Your task to perform on an android device: open sync settings in chrome Image 0: 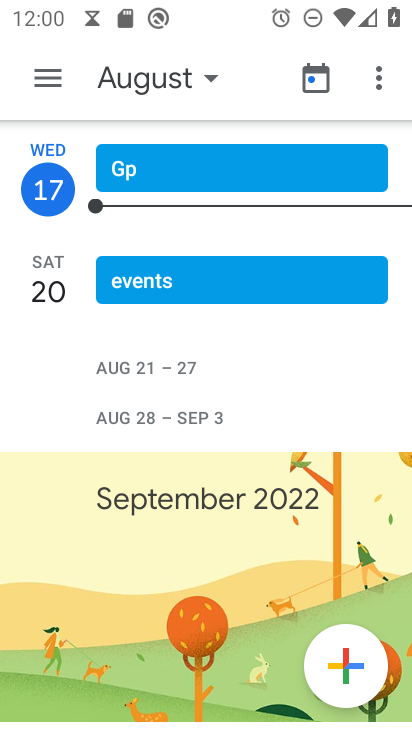
Step 0: press home button
Your task to perform on an android device: open sync settings in chrome Image 1: 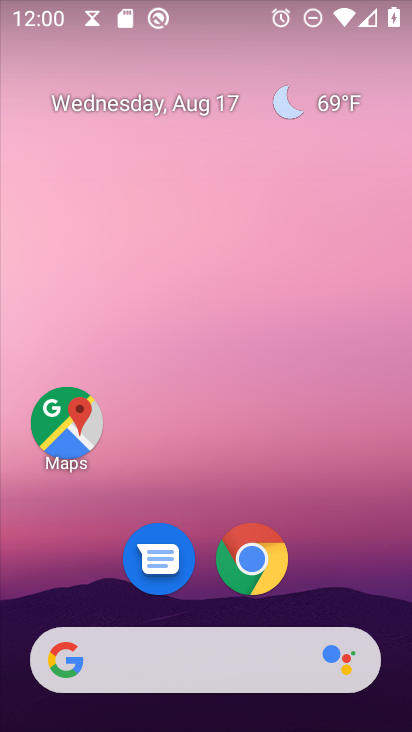
Step 1: click (254, 558)
Your task to perform on an android device: open sync settings in chrome Image 2: 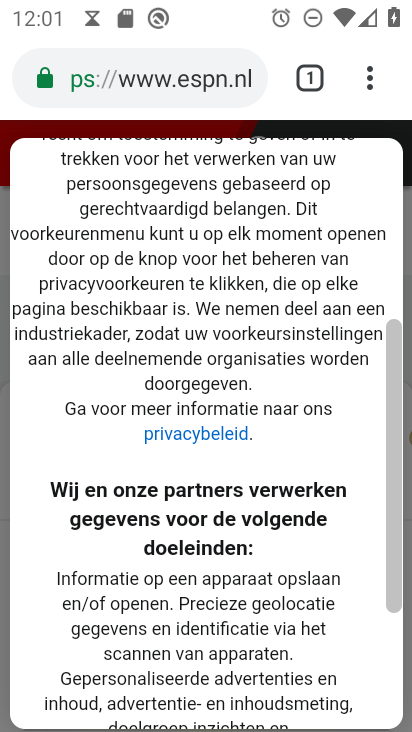
Step 2: click (387, 79)
Your task to perform on an android device: open sync settings in chrome Image 3: 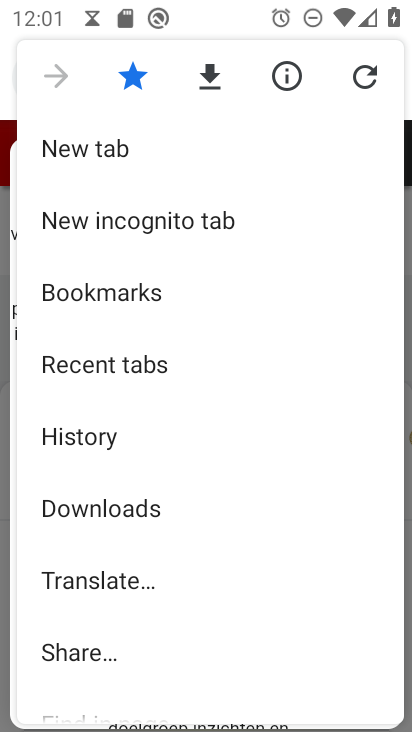
Step 3: drag from (148, 478) to (188, 395)
Your task to perform on an android device: open sync settings in chrome Image 4: 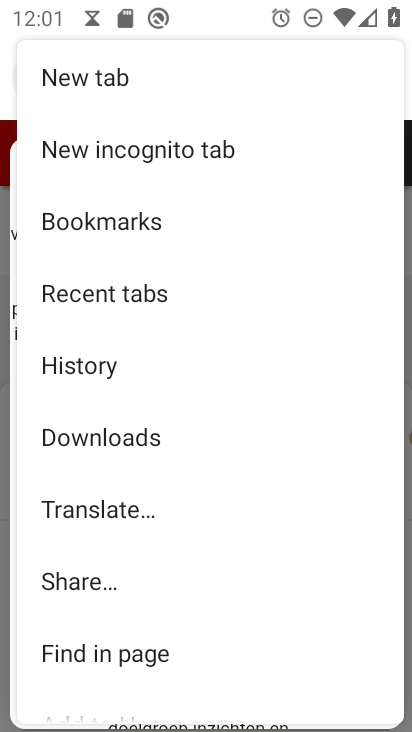
Step 4: drag from (129, 535) to (178, 447)
Your task to perform on an android device: open sync settings in chrome Image 5: 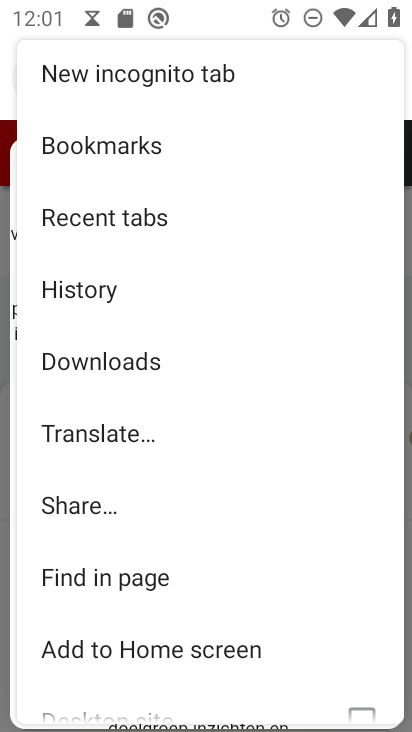
Step 5: drag from (94, 540) to (141, 453)
Your task to perform on an android device: open sync settings in chrome Image 6: 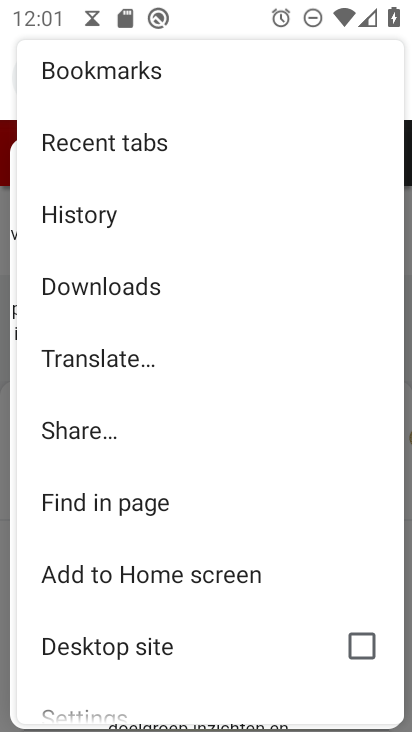
Step 6: drag from (96, 541) to (165, 430)
Your task to perform on an android device: open sync settings in chrome Image 7: 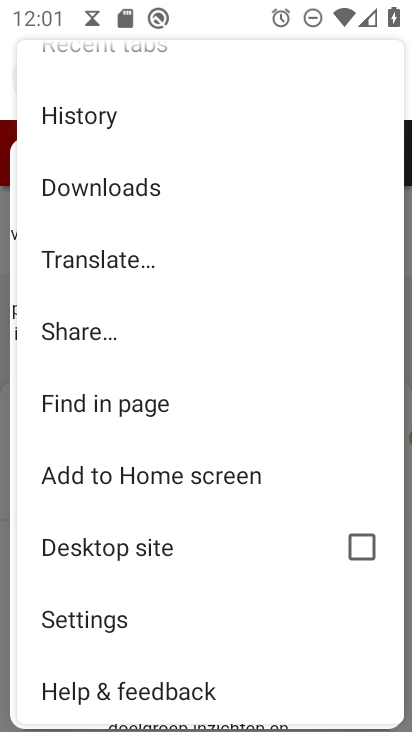
Step 7: click (83, 618)
Your task to perform on an android device: open sync settings in chrome Image 8: 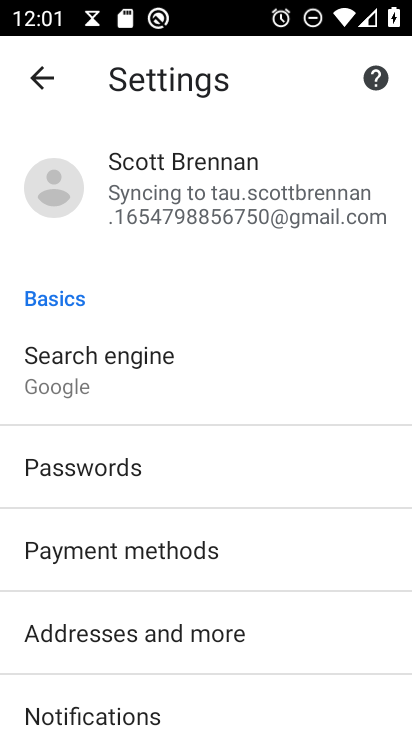
Step 8: drag from (137, 583) to (223, 472)
Your task to perform on an android device: open sync settings in chrome Image 9: 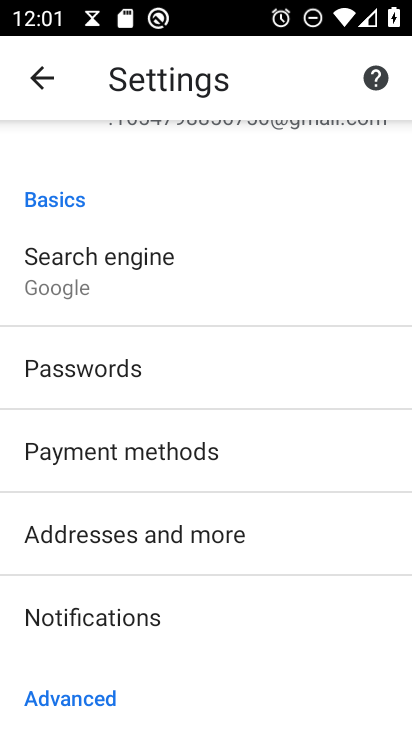
Step 9: drag from (214, 604) to (297, 499)
Your task to perform on an android device: open sync settings in chrome Image 10: 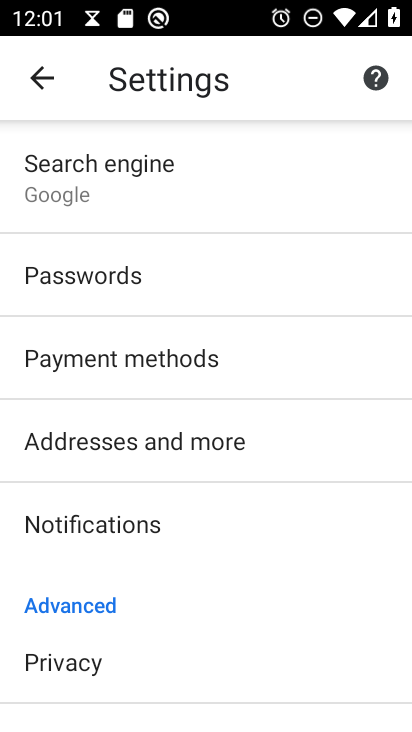
Step 10: drag from (223, 636) to (289, 533)
Your task to perform on an android device: open sync settings in chrome Image 11: 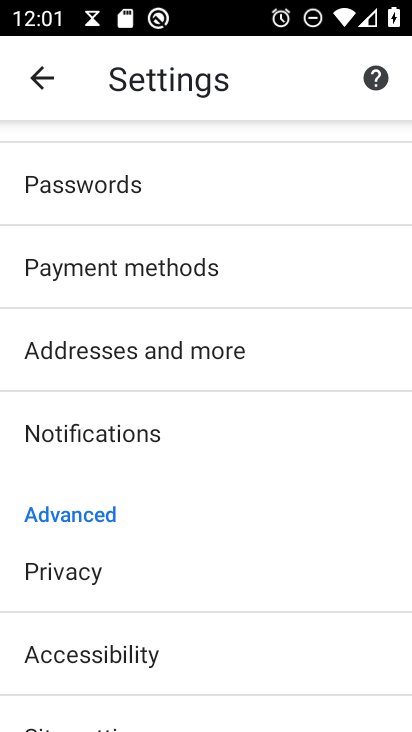
Step 11: drag from (204, 680) to (291, 571)
Your task to perform on an android device: open sync settings in chrome Image 12: 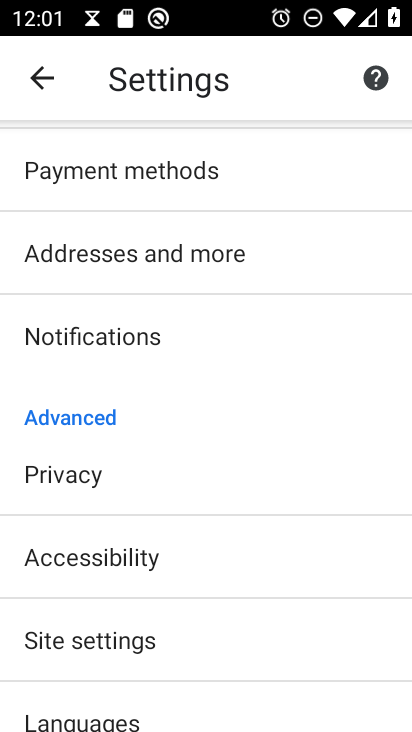
Step 12: drag from (224, 665) to (294, 575)
Your task to perform on an android device: open sync settings in chrome Image 13: 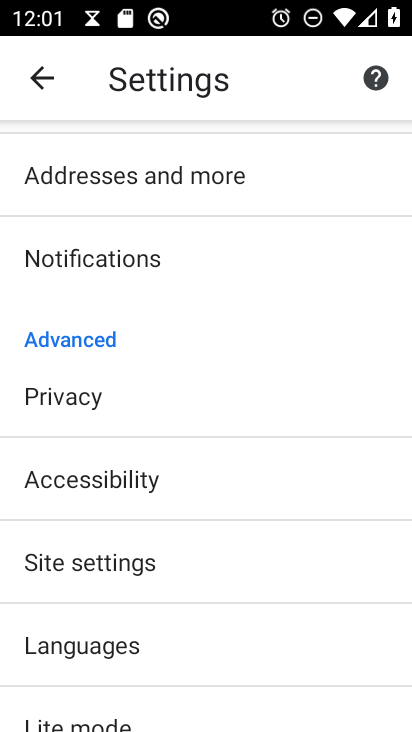
Step 13: drag from (196, 668) to (286, 557)
Your task to perform on an android device: open sync settings in chrome Image 14: 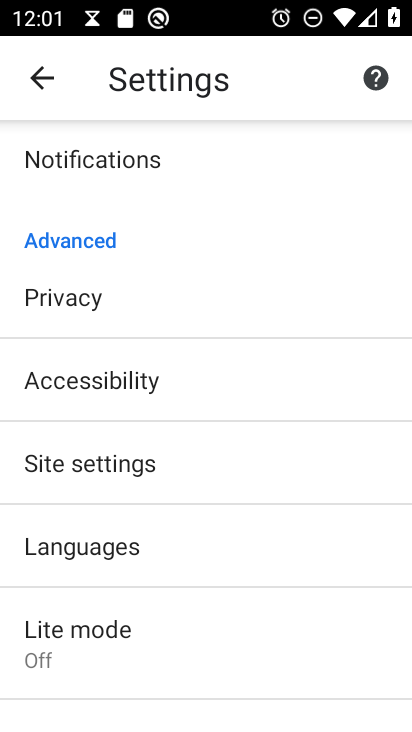
Step 14: click (156, 472)
Your task to perform on an android device: open sync settings in chrome Image 15: 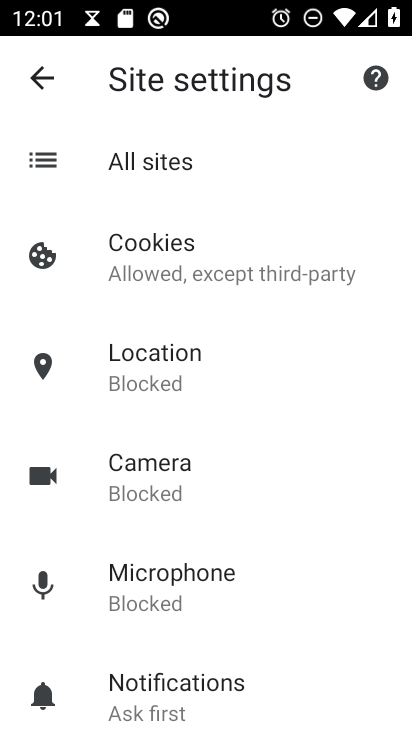
Step 15: drag from (186, 532) to (246, 441)
Your task to perform on an android device: open sync settings in chrome Image 16: 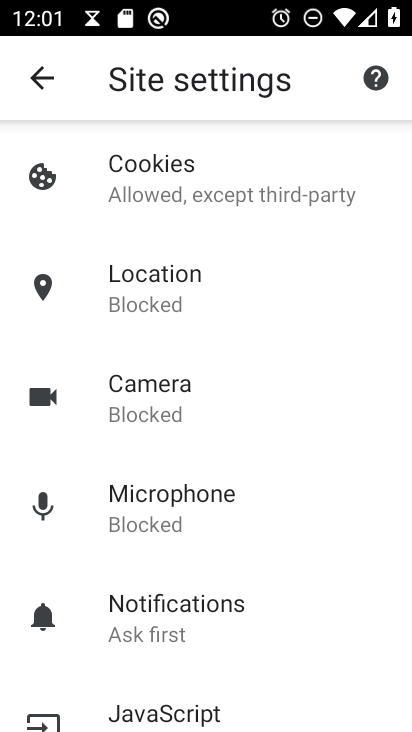
Step 16: drag from (200, 625) to (313, 496)
Your task to perform on an android device: open sync settings in chrome Image 17: 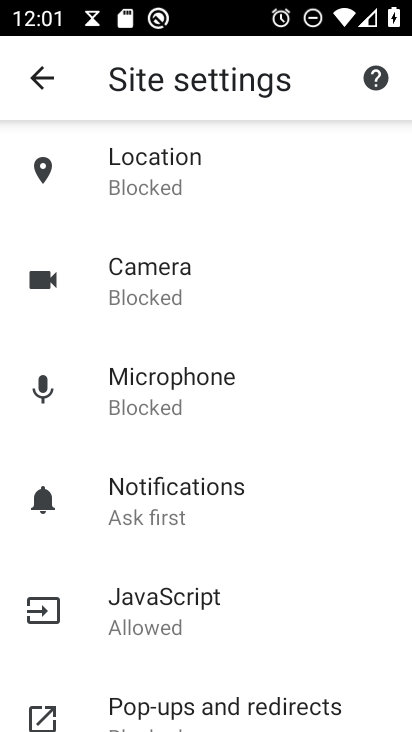
Step 17: drag from (199, 651) to (300, 527)
Your task to perform on an android device: open sync settings in chrome Image 18: 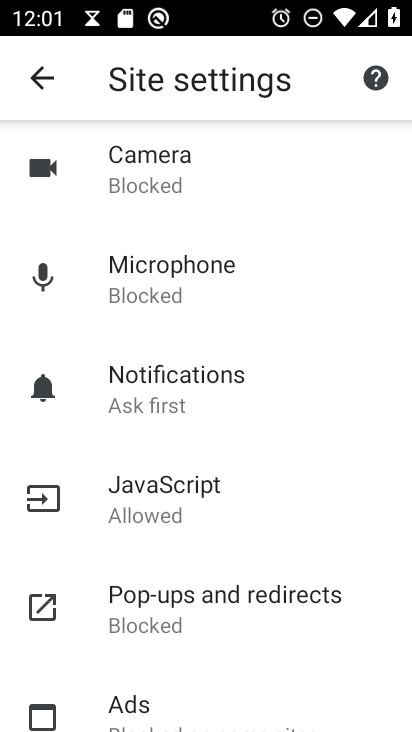
Step 18: drag from (195, 666) to (286, 526)
Your task to perform on an android device: open sync settings in chrome Image 19: 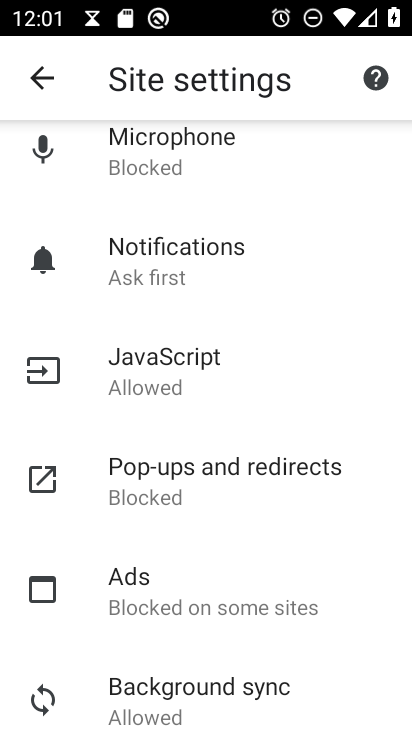
Step 19: drag from (214, 627) to (301, 511)
Your task to perform on an android device: open sync settings in chrome Image 20: 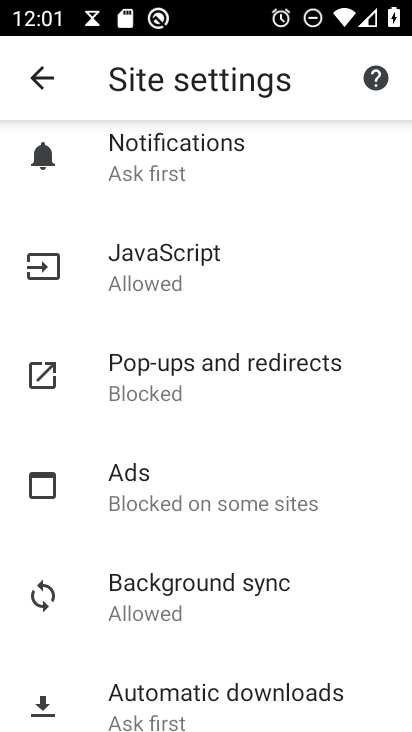
Step 20: click (230, 593)
Your task to perform on an android device: open sync settings in chrome Image 21: 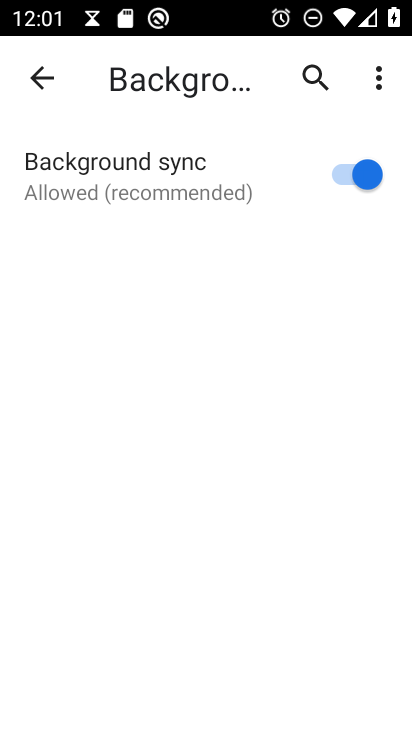
Step 21: task complete